Your task to perform on an android device: Search for pizza restaurants on Maps Image 0: 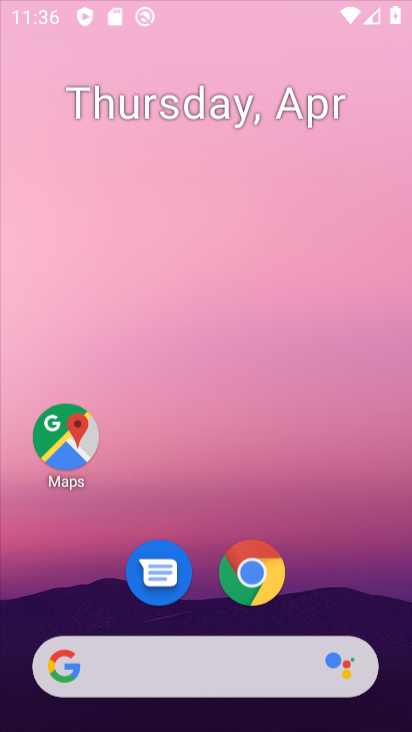
Step 0: click (261, 59)
Your task to perform on an android device: Search for pizza restaurants on Maps Image 1: 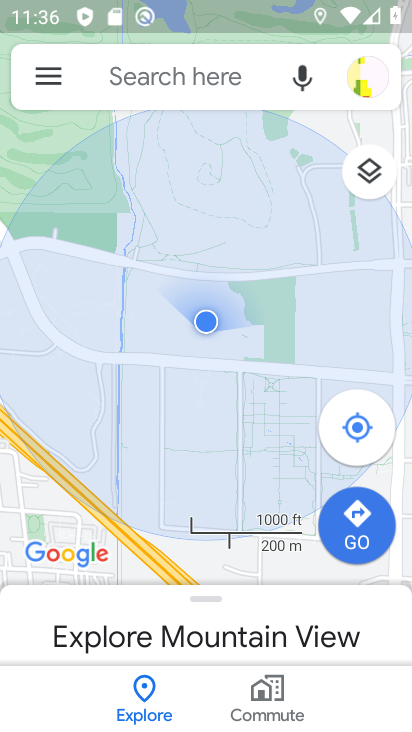
Step 1: click (202, 83)
Your task to perform on an android device: Search for pizza restaurants on Maps Image 2: 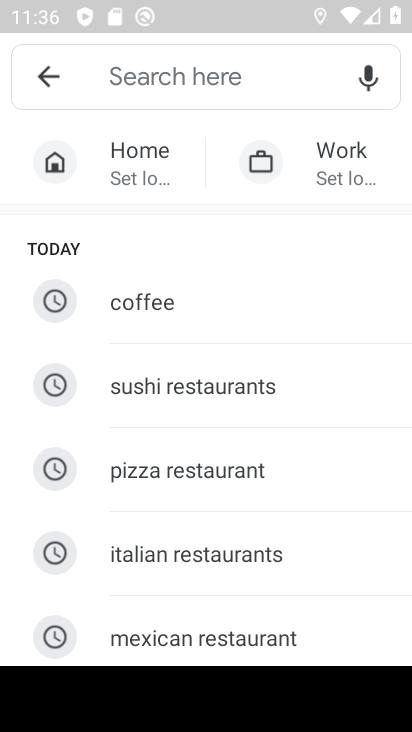
Step 2: click (200, 466)
Your task to perform on an android device: Search for pizza restaurants on Maps Image 3: 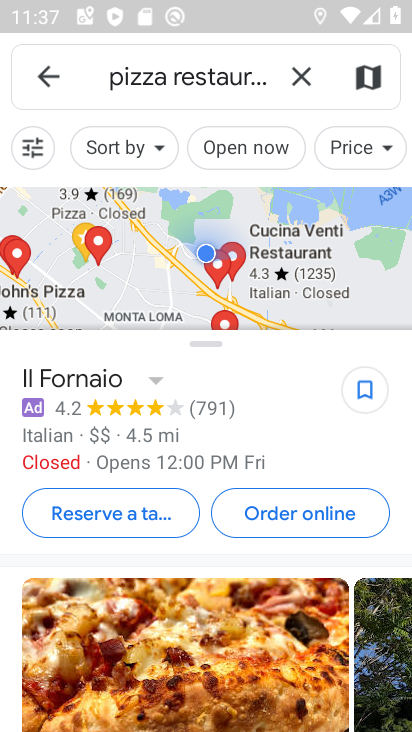
Step 3: task complete